Your task to perform on an android device: see tabs open on other devices in the chrome app Image 0: 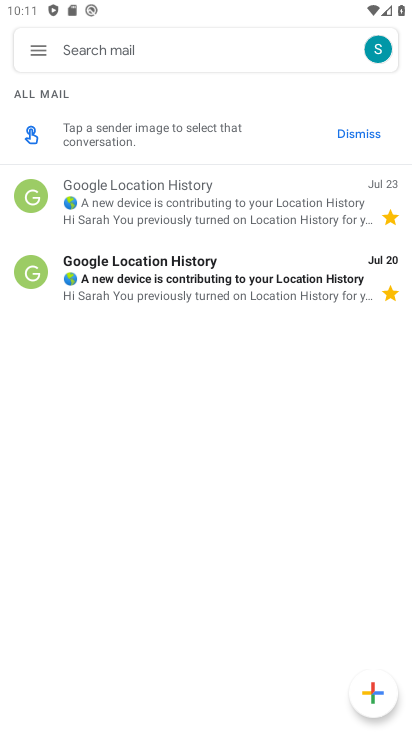
Step 0: press home button
Your task to perform on an android device: see tabs open on other devices in the chrome app Image 1: 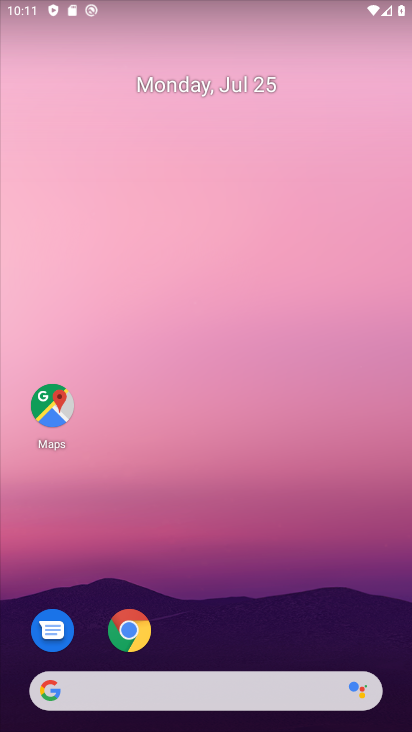
Step 1: drag from (260, 615) to (303, 46)
Your task to perform on an android device: see tabs open on other devices in the chrome app Image 2: 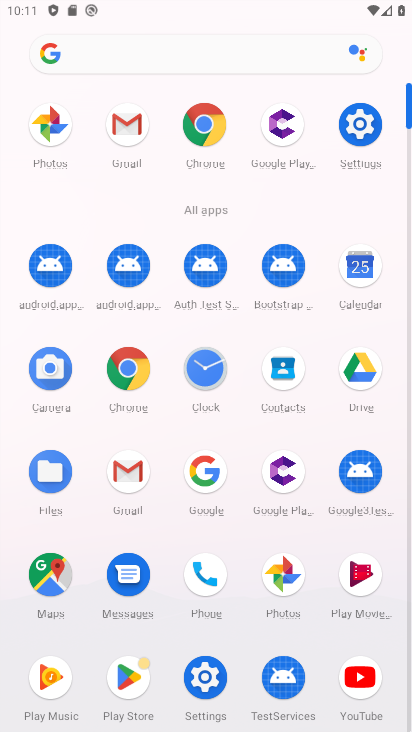
Step 2: click (204, 120)
Your task to perform on an android device: see tabs open on other devices in the chrome app Image 3: 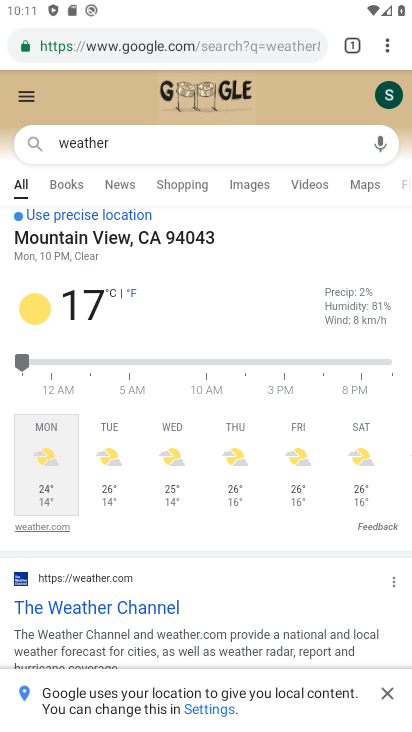
Step 3: task complete